Your task to perform on an android device: Go to battery settings Image 0: 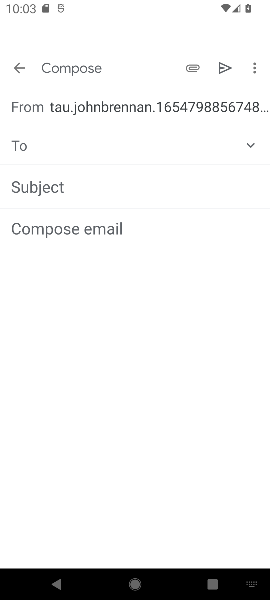
Step 0: press home button
Your task to perform on an android device: Go to battery settings Image 1: 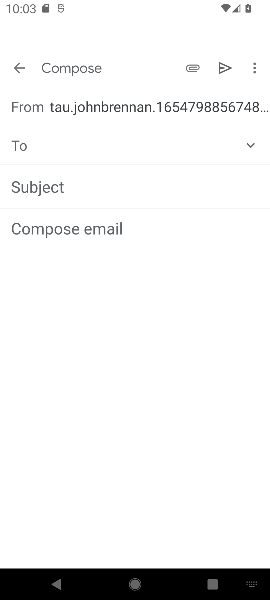
Step 1: press home button
Your task to perform on an android device: Go to battery settings Image 2: 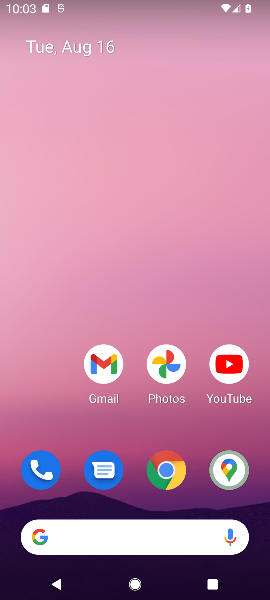
Step 2: drag from (50, 404) to (124, 0)
Your task to perform on an android device: Go to battery settings Image 3: 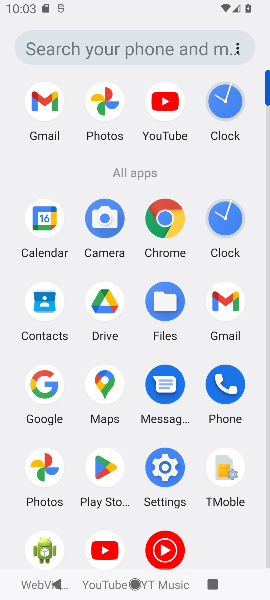
Step 3: click (170, 461)
Your task to perform on an android device: Go to battery settings Image 4: 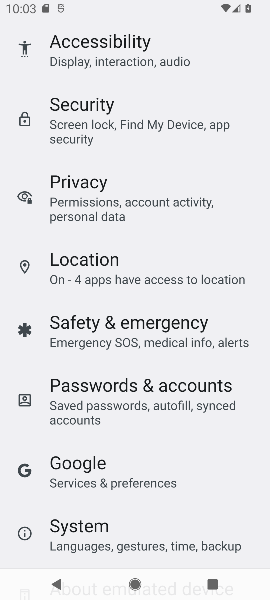
Step 4: drag from (137, 205) to (97, 519)
Your task to perform on an android device: Go to battery settings Image 5: 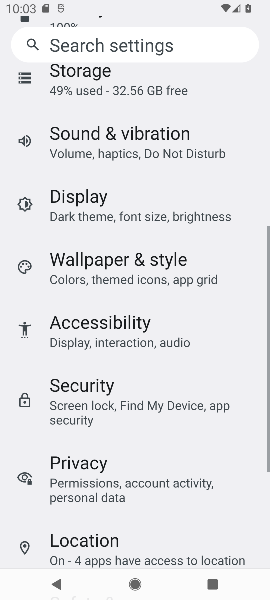
Step 5: drag from (131, 237) to (122, 452)
Your task to perform on an android device: Go to battery settings Image 6: 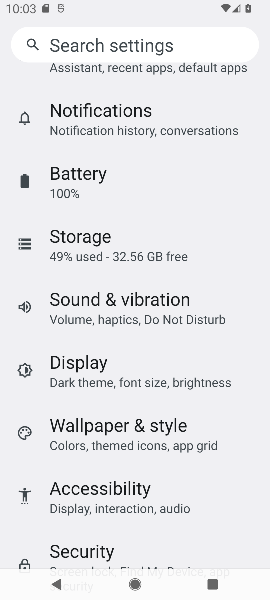
Step 6: click (125, 181)
Your task to perform on an android device: Go to battery settings Image 7: 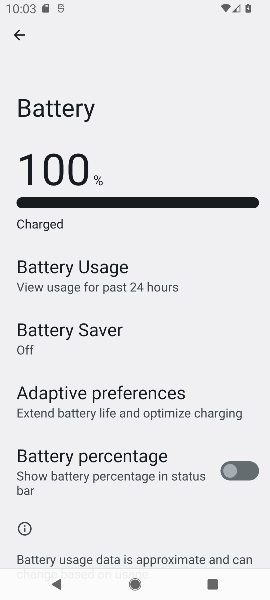
Step 7: task complete